Your task to perform on an android device: add a contact Image 0: 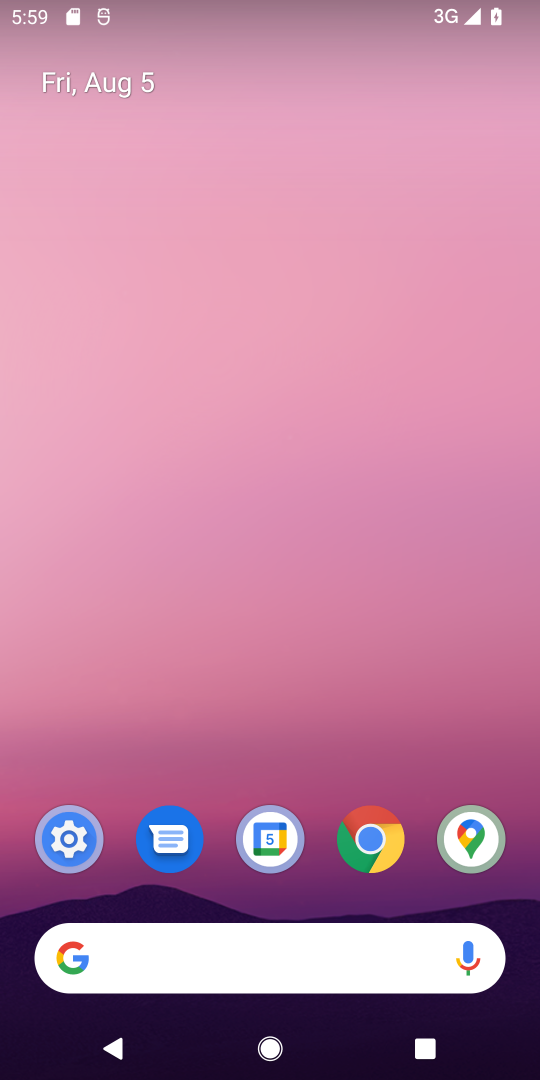
Step 0: drag from (297, 735) to (287, 183)
Your task to perform on an android device: add a contact Image 1: 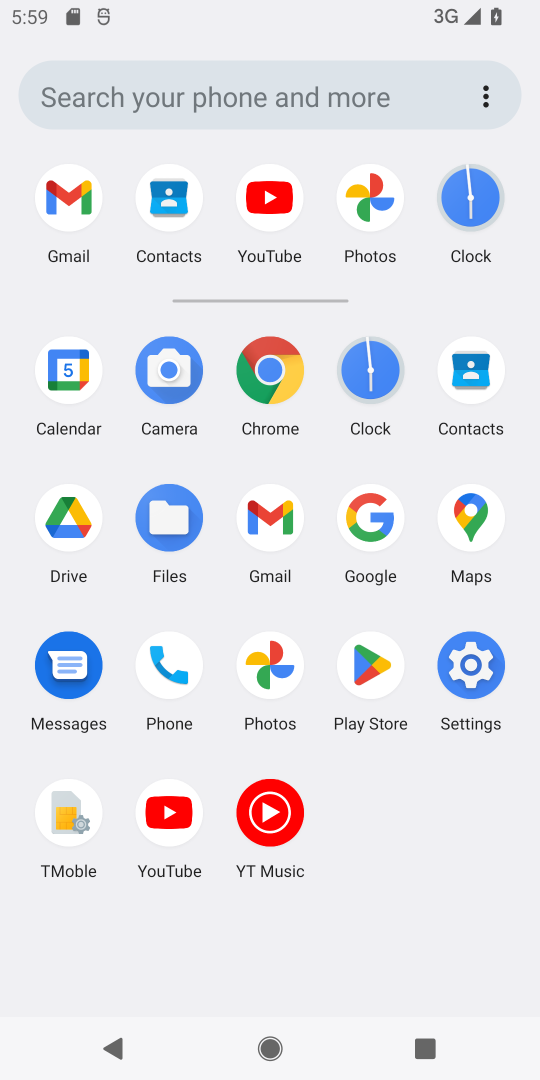
Step 1: click (459, 392)
Your task to perform on an android device: add a contact Image 2: 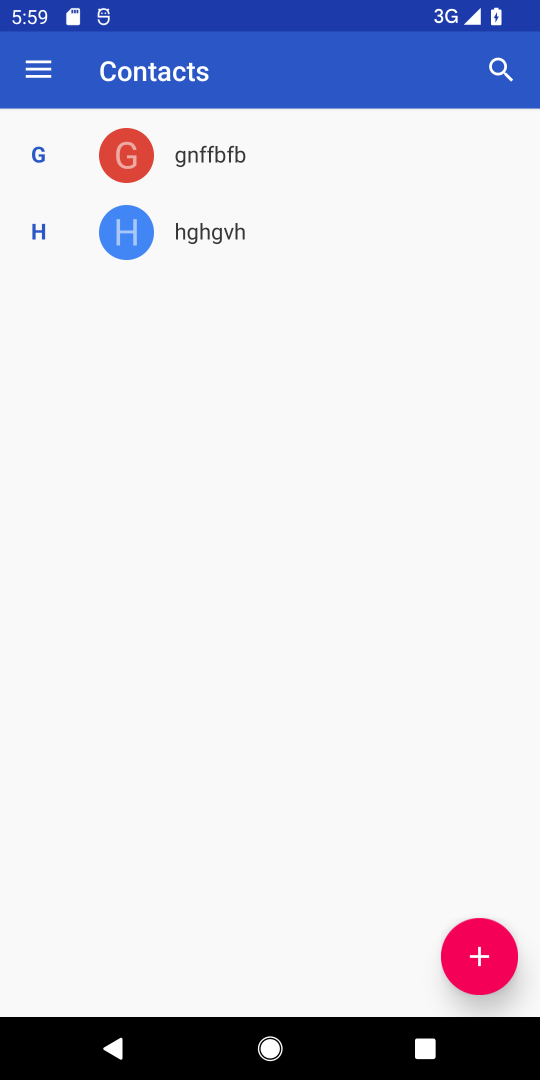
Step 2: click (513, 975)
Your task to perform on an android device: add a contact Image 3: 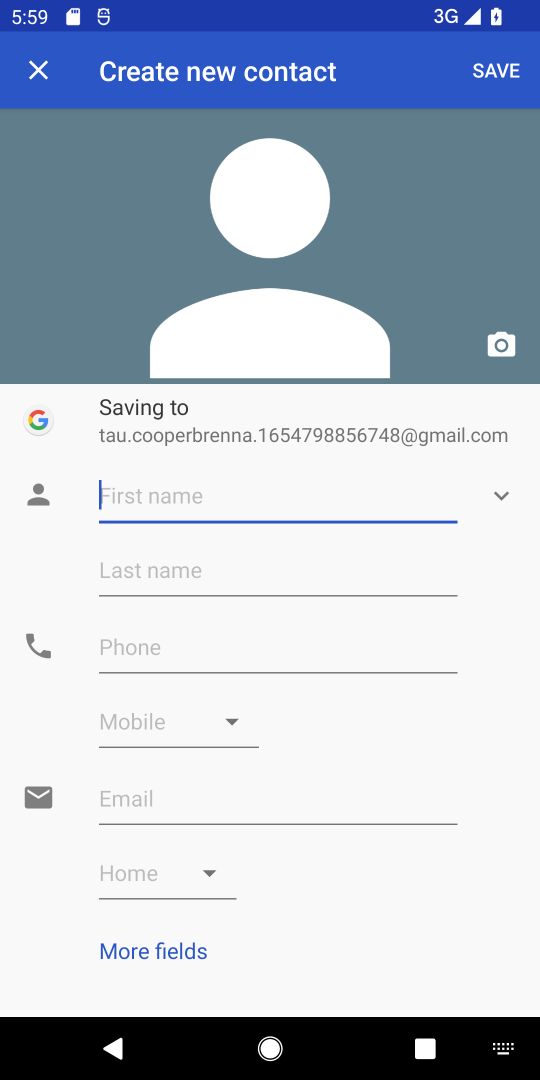
Step 3: type "dfgdhg"
Your task to perform on an android device: add a contact Image 4: 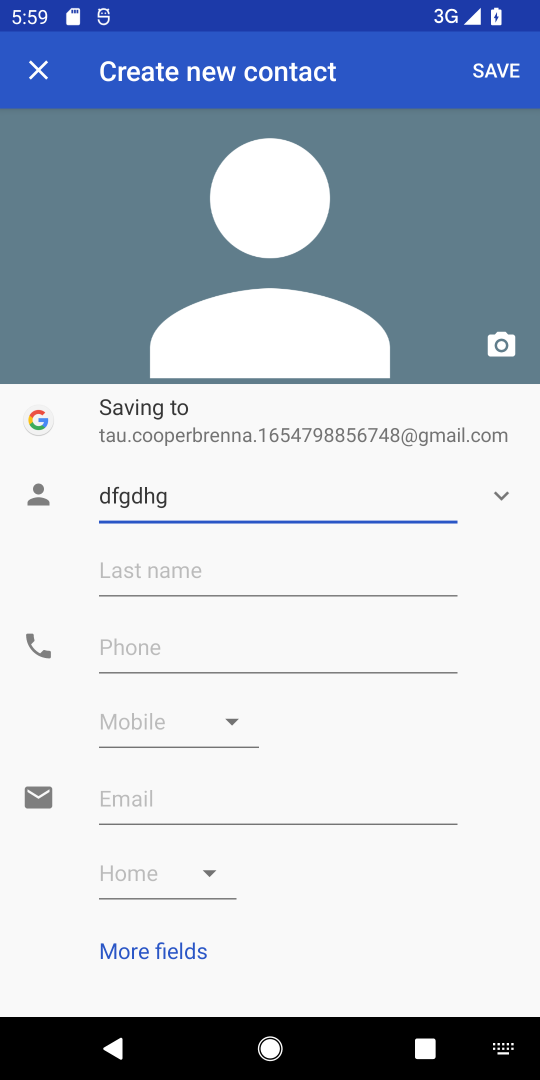
Step 4: click (157, 658)
Your task to perform on an android device: add a contact Image 5: 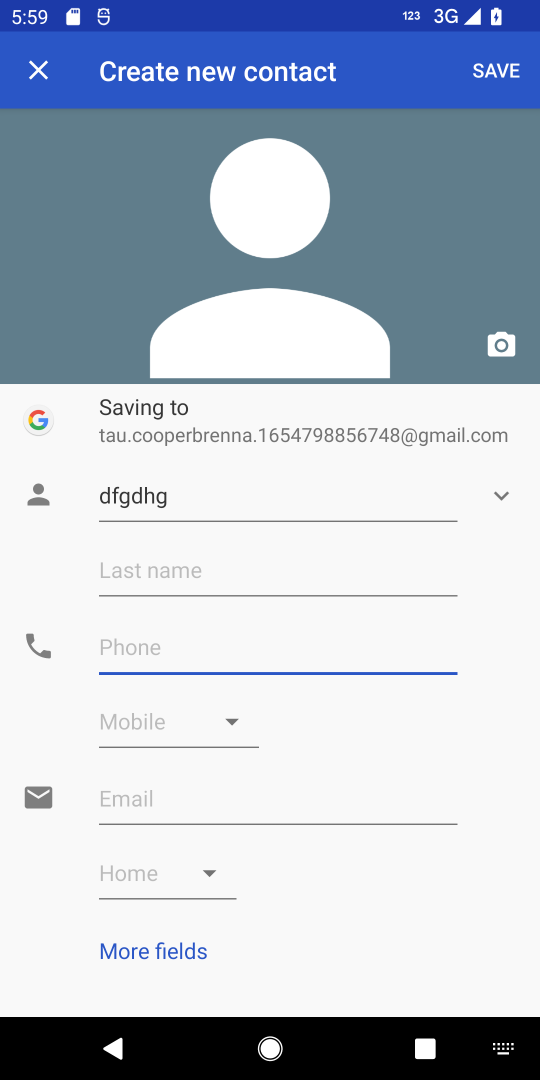
Step 5: type "8567545645"
Your task to perform on an android device: add a contact Image 6: 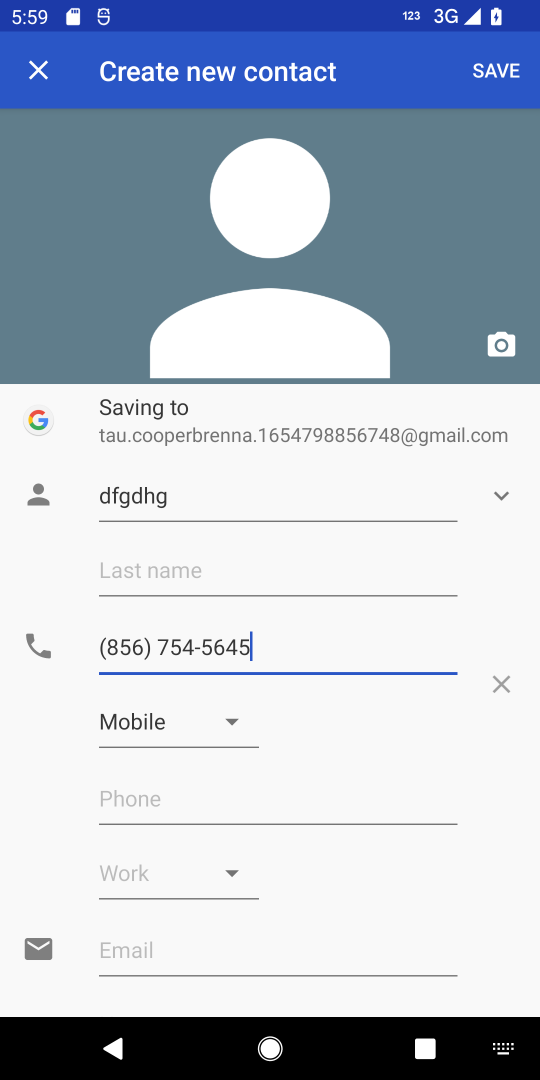
Step 6: click (496, 70)
Your task to perform on an android device: add a contact Image 7: 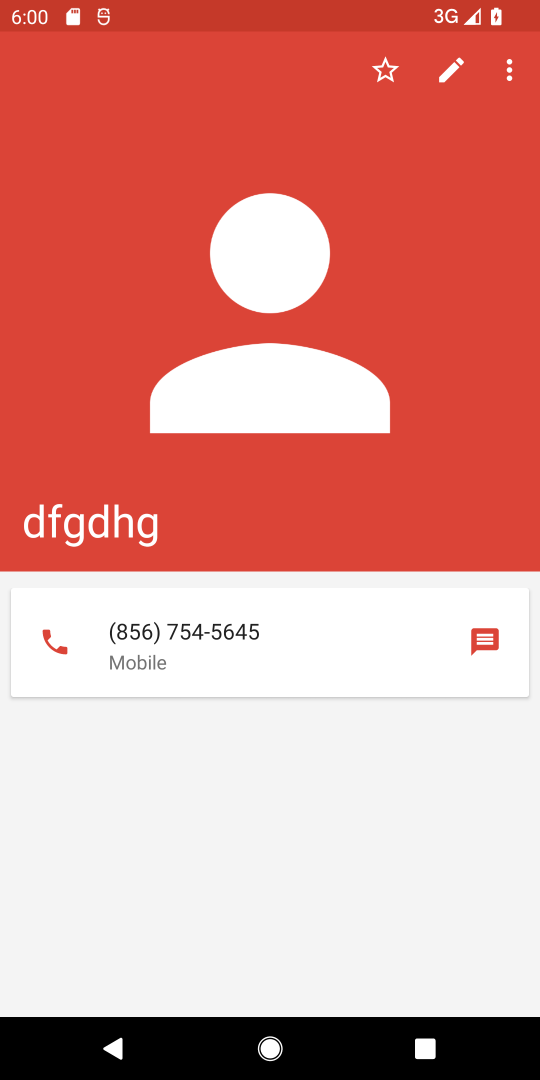
Step 7: task complete